Your task to perform on an android device: Go to privacy settings Image 0: 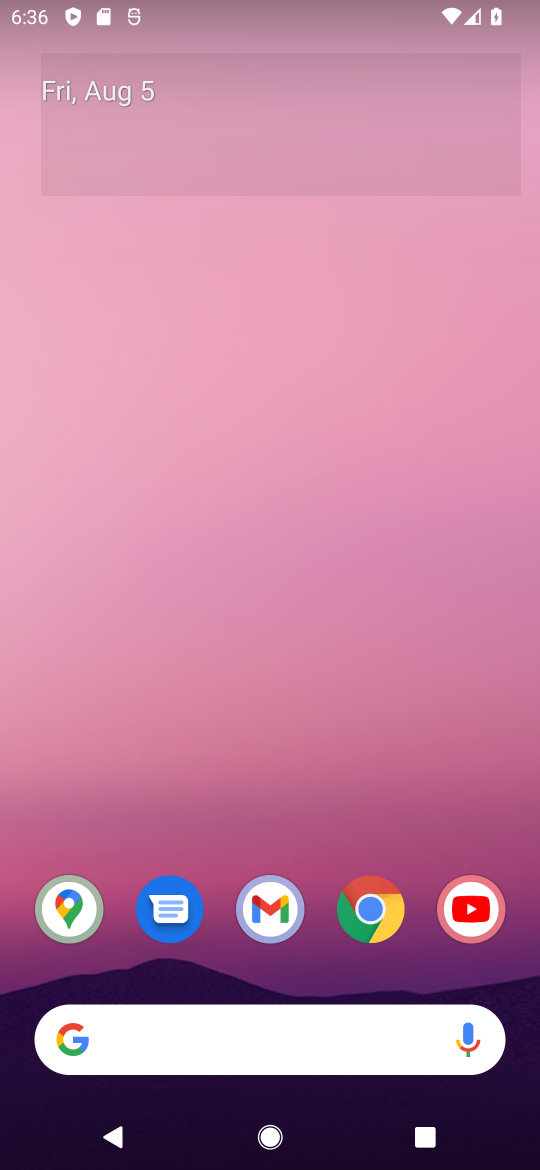
Step 0: drag from (422, 814) to (254, 80)
Your task to perform on an android device: Go to privacy settings Image 1: 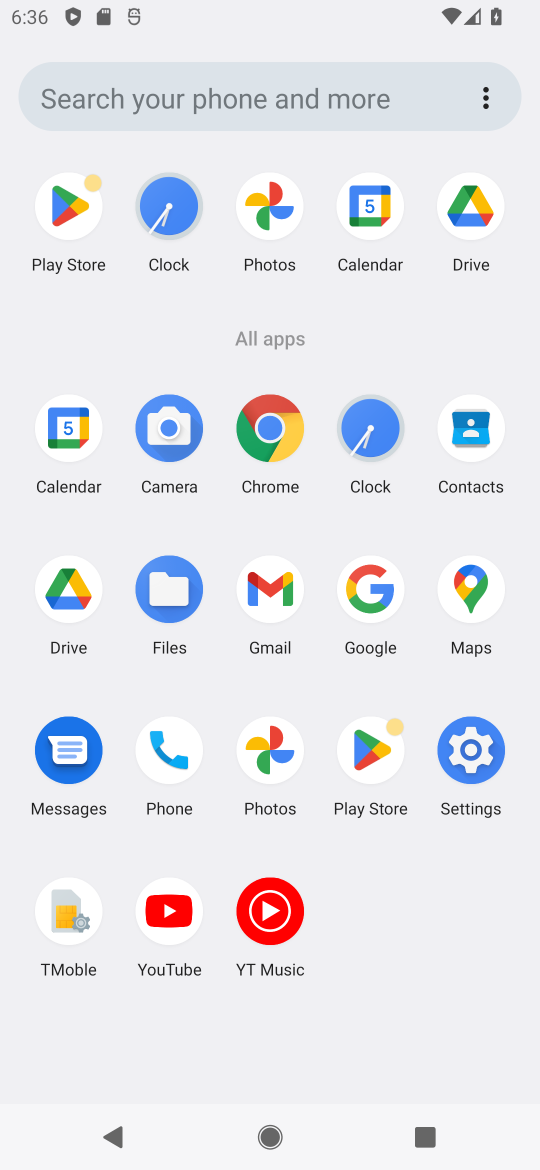
Step 1: click (461, 737)
Your task to perform on an android device: Go to privacy settings Image 2: 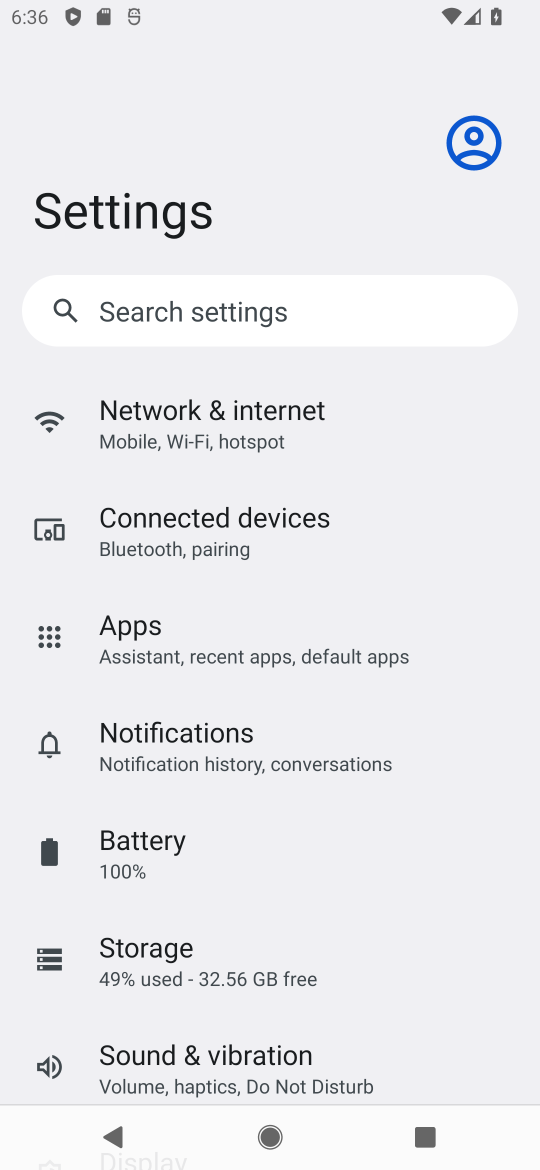
Step 2: drag from (348, 916) to (349, 279)
Your task to perform on an android device: Go to privacy settings Image 3: 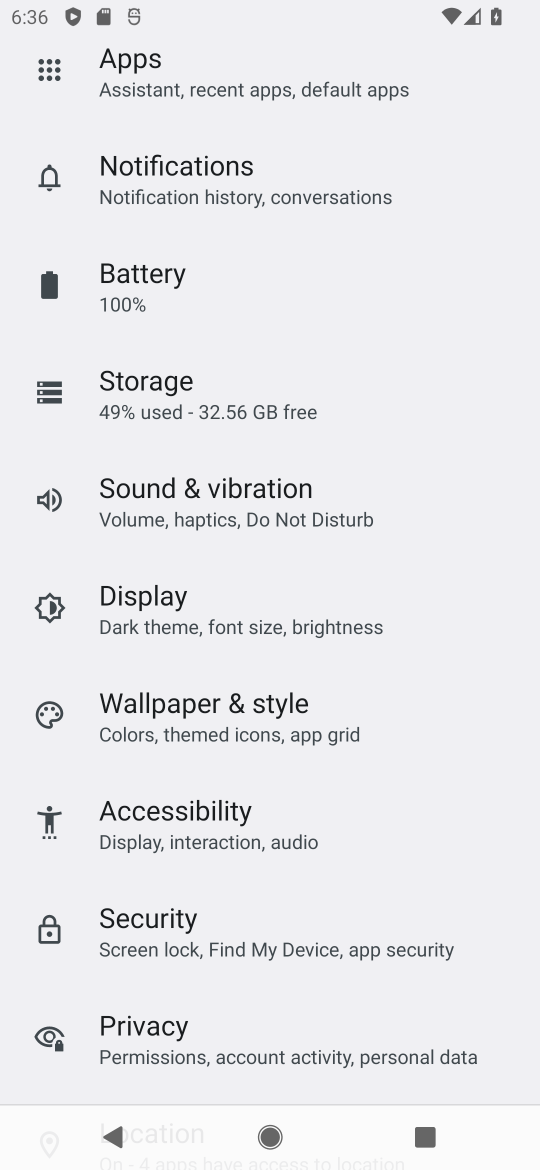
Step 3: click (195, 1041)
Your task to perform on an android device: Go to privacy settings Image 4: 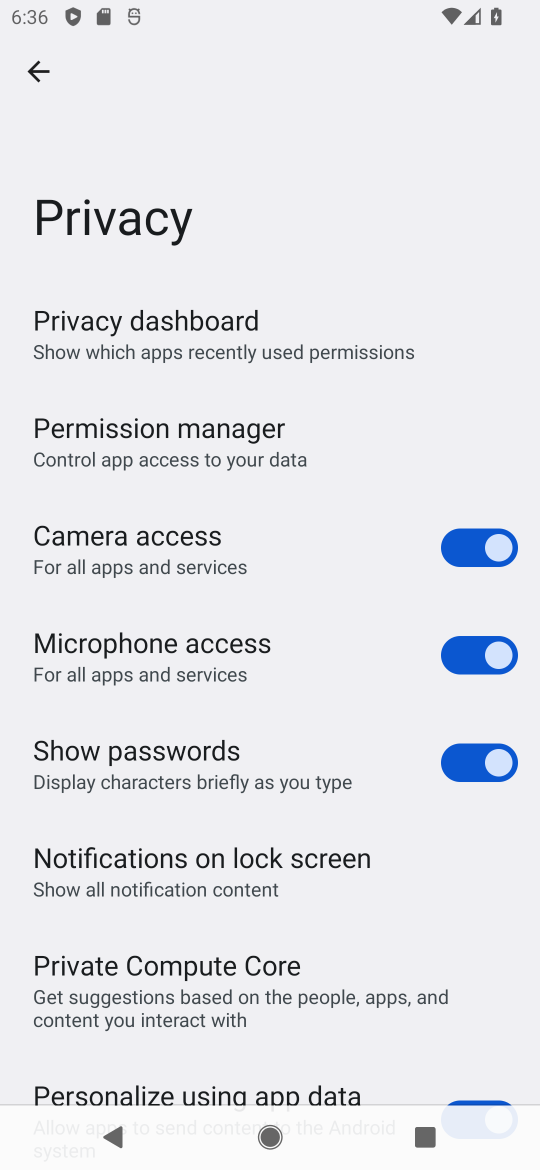
Step 4: task complete